Your task to perform on an android device: Open Android settings Image 0: 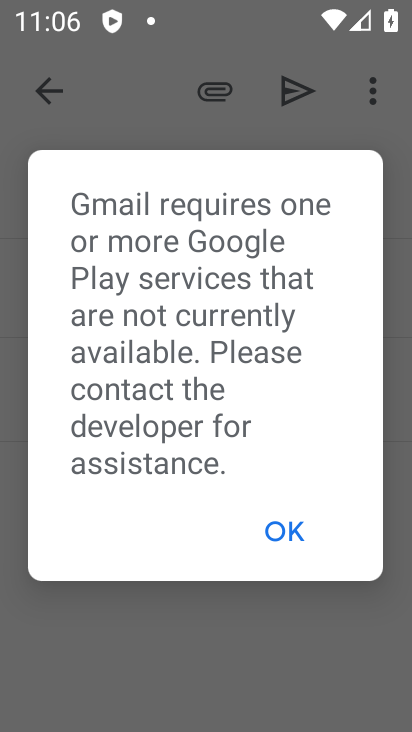
Step 0: press home button
Your task to perform on an android device: Open Android settings Image 1: 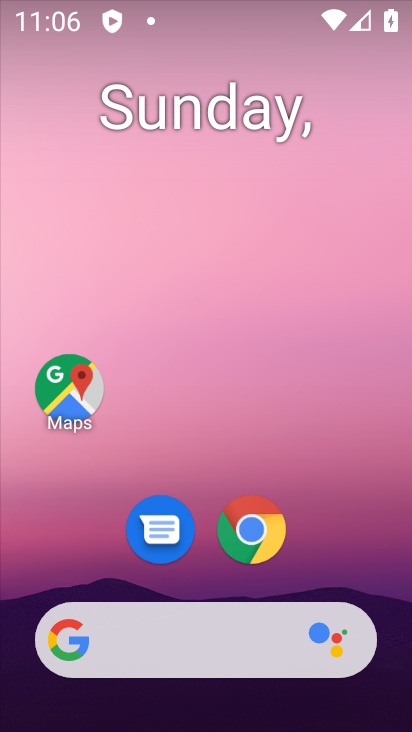
Step 1: drag from (387, 624) to (281, 72)
Your task to perform on an android device: Open Android settings Image 2: 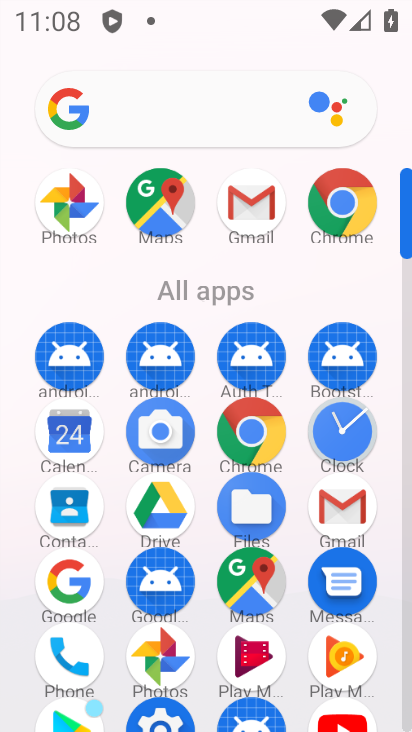
Step 2: click (407, 722)
Your task to perform on an android device: Open Android settings Image 3: 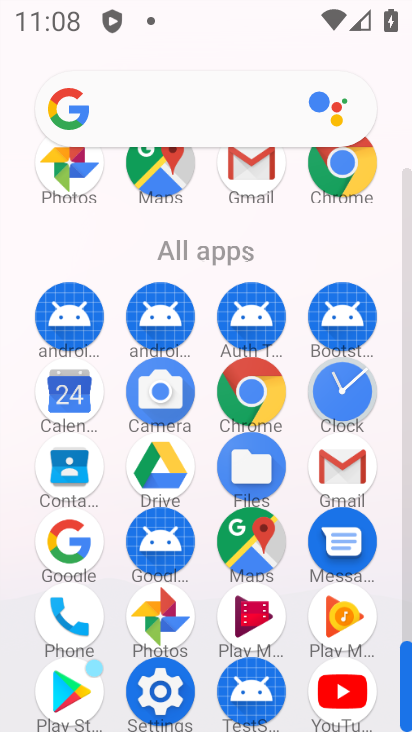
Step 3: click (166, 694)
Your task to perform on an android device: Open Android settings Image 4: 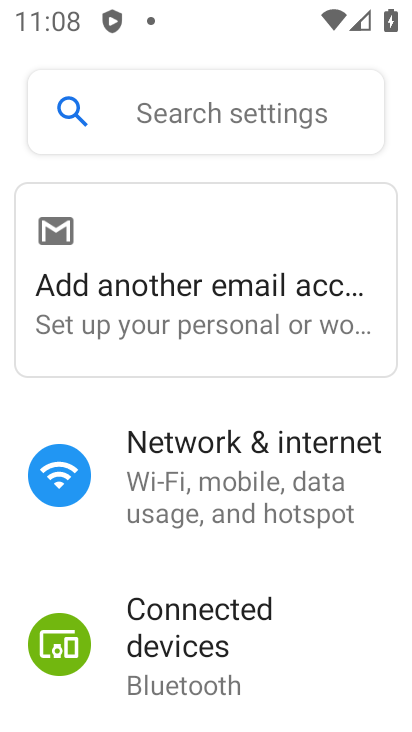
Step 4: drag from (208, 660) to (342, 112)
Your task to perform on an android device: Open Android settings Image 5: 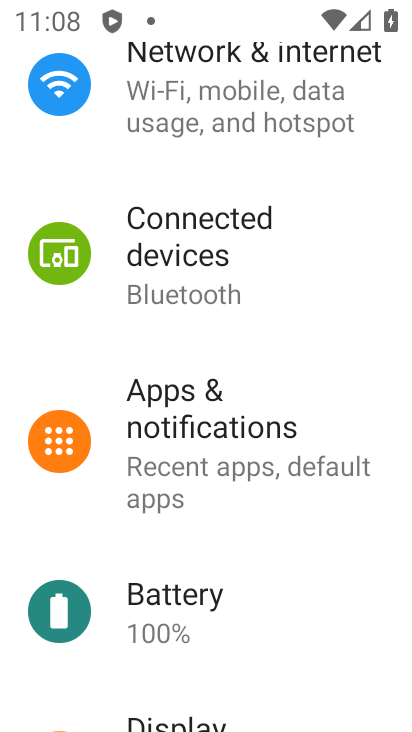
Step 5: drag from (166, 655) to (266, 134)
Your task to perform on an android device: Open Android settings Image 6: 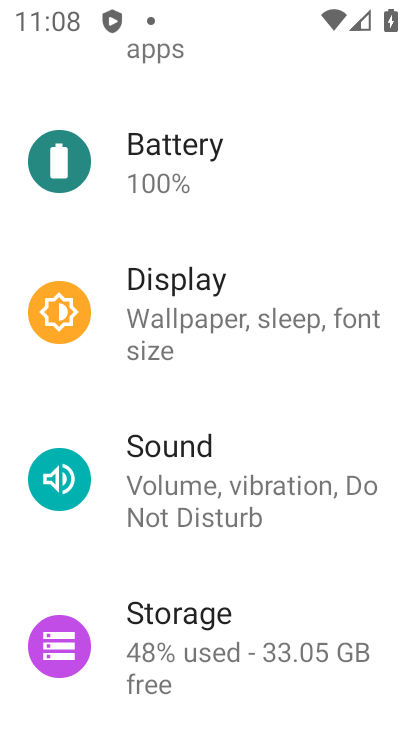
Step 6: drag from (183, 677) to (249, 62)
Your task to perform on an android device: Open Android settings Image 7: 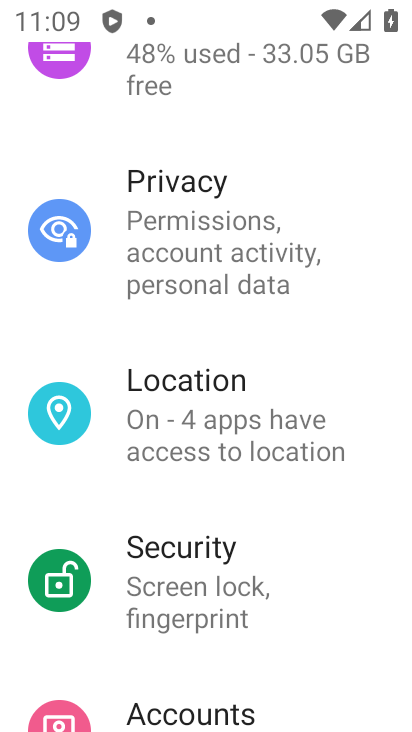
Step 7: drag from (208, 658) to (297, 46)
Your task to perform on an android device: Open Android settings Image 8: 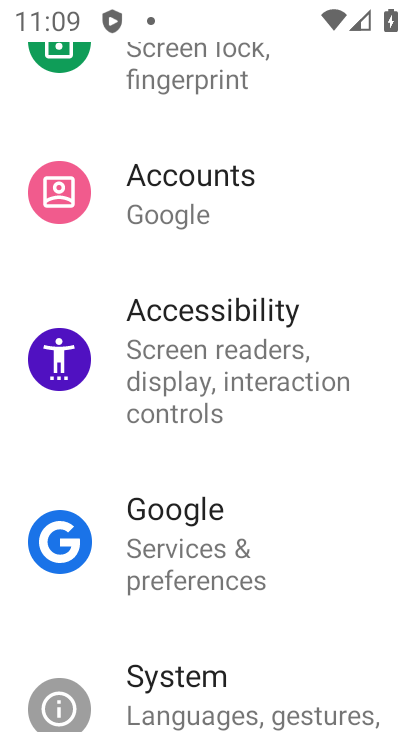
Step 8: drag from (192, 680) to (268, 98)
Your task to perform on an android device: Open Android settings Image 9: 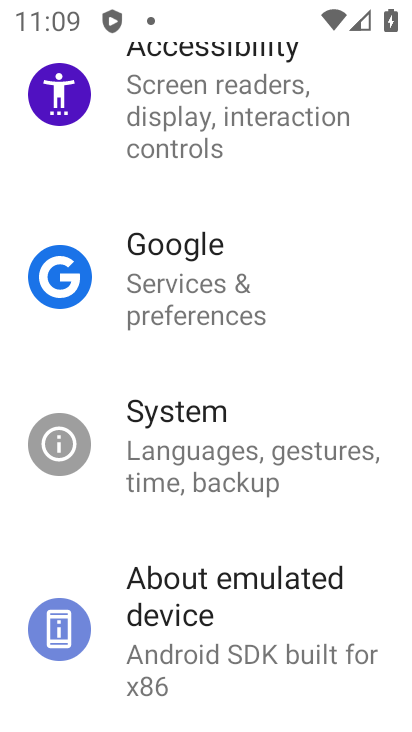
Step 9: click (243, 597)
Your task to perform on an android device: Open Android settings Image 10: 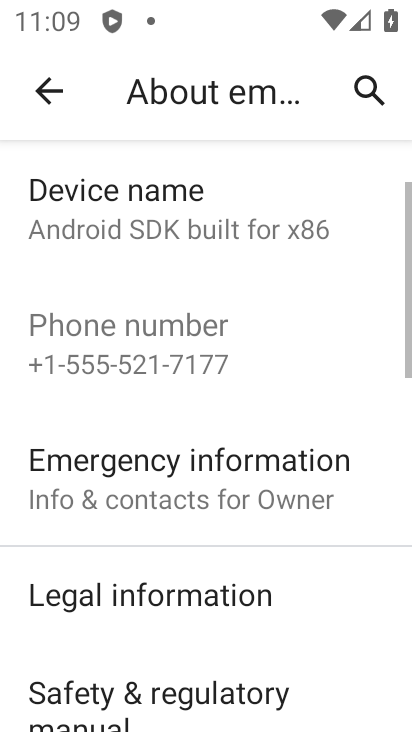
Step 10: drag from (162, 628) to (293, 205)
Your task to perform on an android device: Open Android settings Image 11: 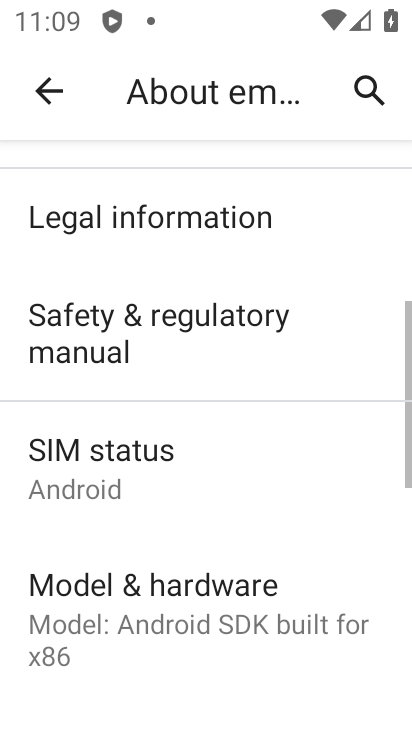
Step 11: drag from (169, 589) to (298, 182)
Your task to perform on an android device: Open Android settings Image 12: 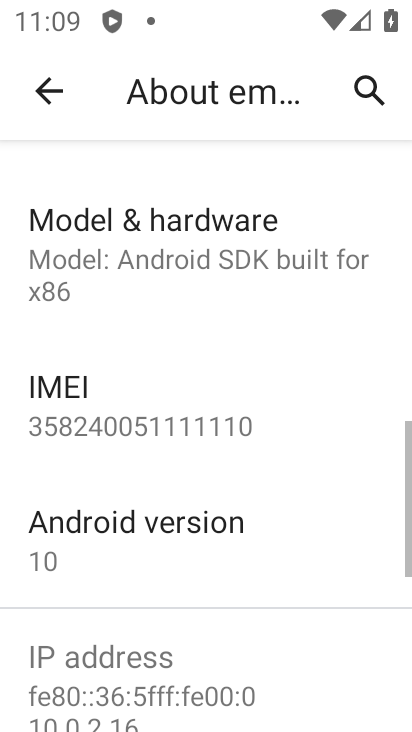
Step 12: click (159, 519)
Your task to perform on an android device: Open Android settings Image 13: 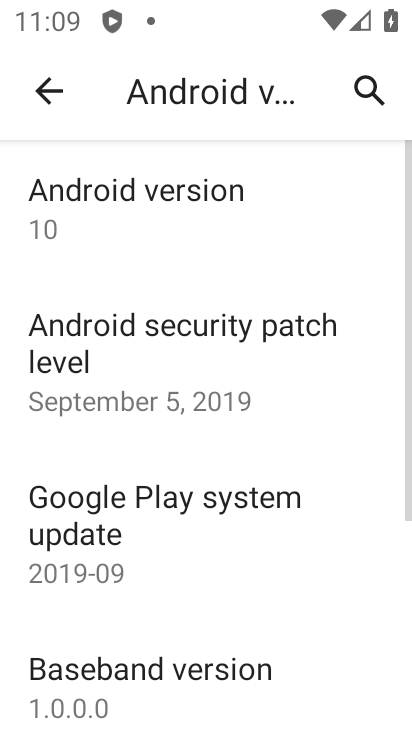
Step 13: click (222, 189)
Your task to perform on an android device: Open Android settings Image 14: 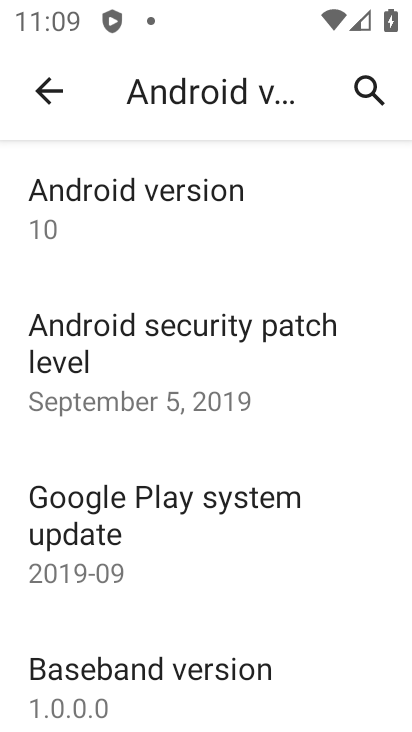
Step 14: task complete